Your task to perform on an android device: View the shopping cart on amazon. Add apple airpods pro to the cart on amazon, then select checkout. Image 0: 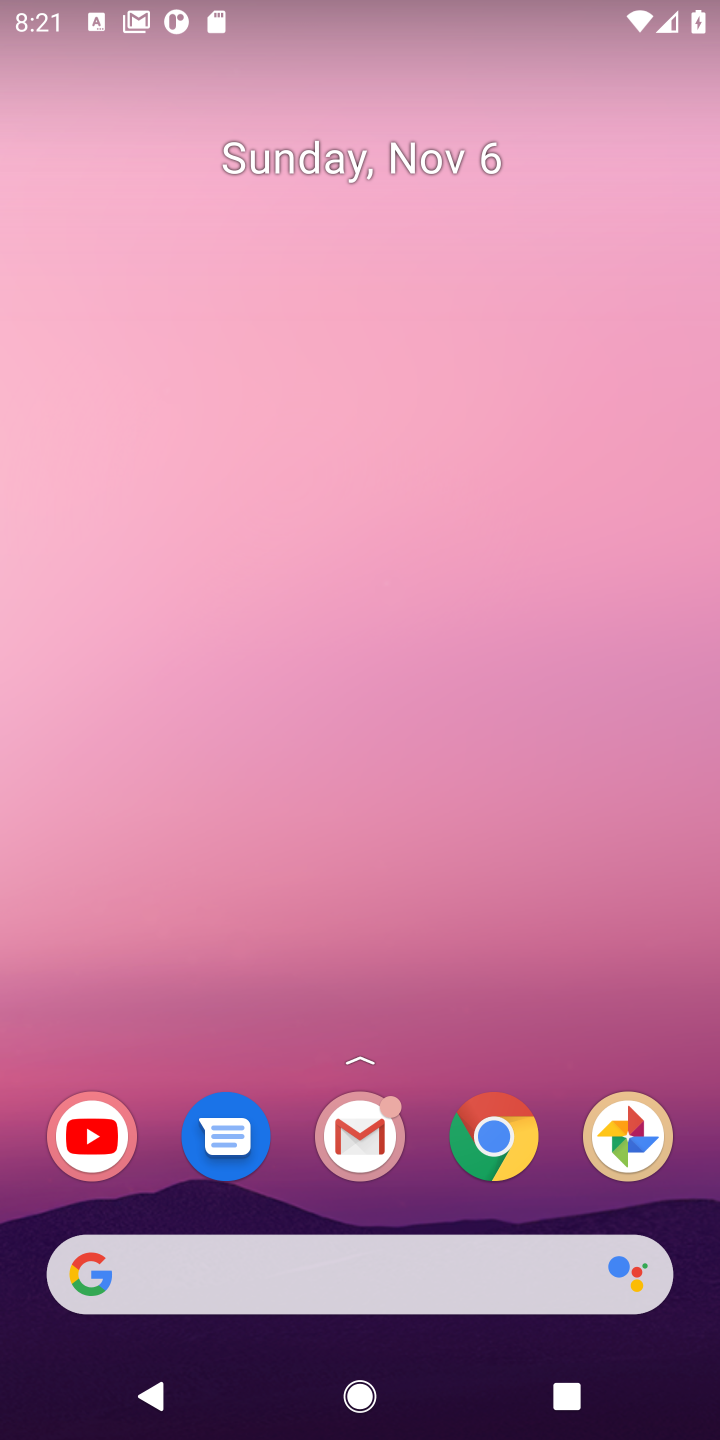
Step 0: click (433, 1257)
Your task to perform on an android device: View the shopping cart on amazon. Add apple airpods pro to the cart on amazon, then select checkout. Image 1: 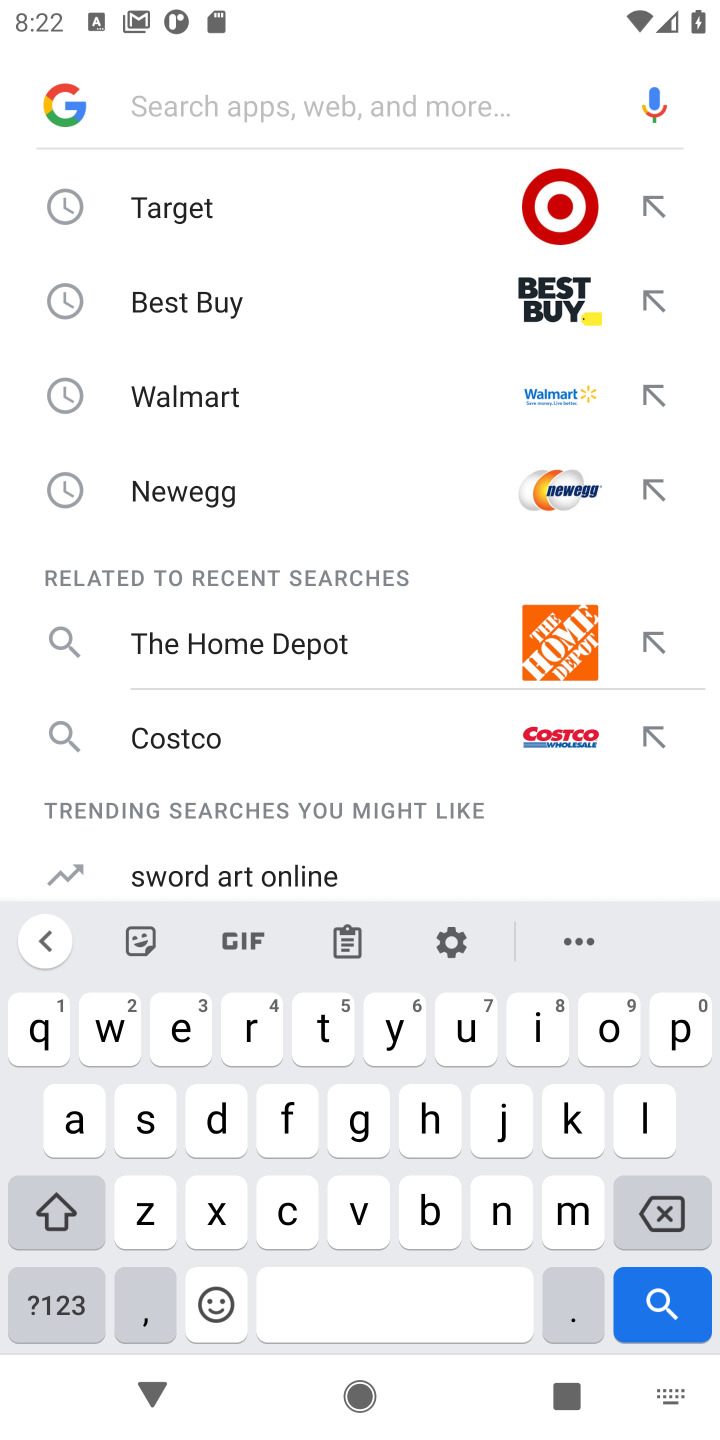
Step 1: click (334, 290)
Your task to perform on an android device: View the shopping cart on amazon. Add apple airpods pro to the cart on amazon, then select checkout. Image 2: 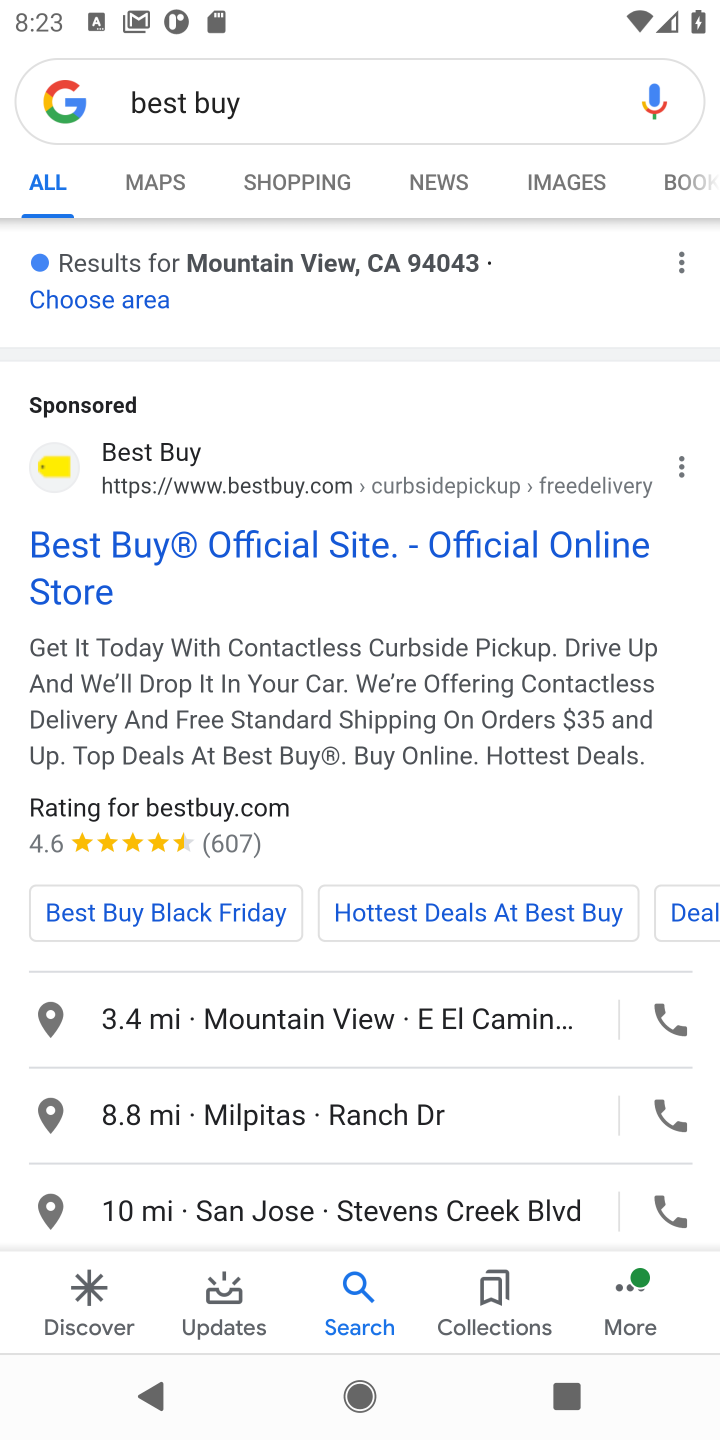
Step 2: task complete